Your task to perform on an android device: Toggle the flashlight Image 0: 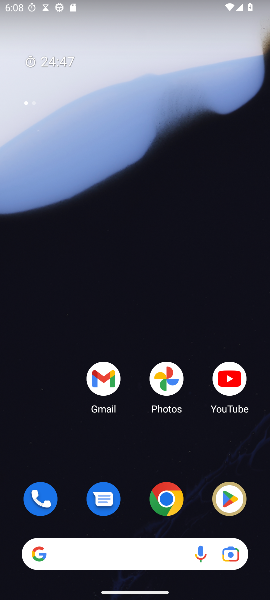
Step 0: drag from (126, 501) to (69, 61)
Your task to perform on an android device: Toggle the flashlight Image 1: 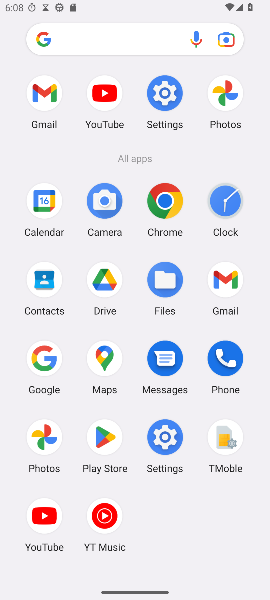
Step 1: click (159, 94)
Your task to perform on an android device: Toggle the flashlight Image 2: 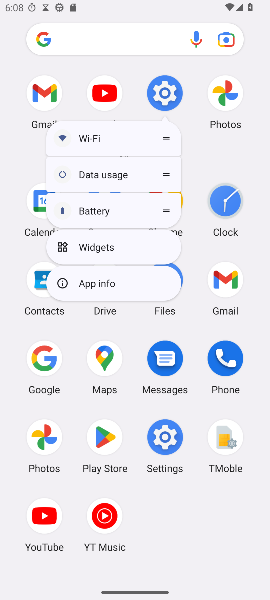
Step 2: click (159, 94)
Your task to perform on an android device: Toggle the flashlight Image 3: 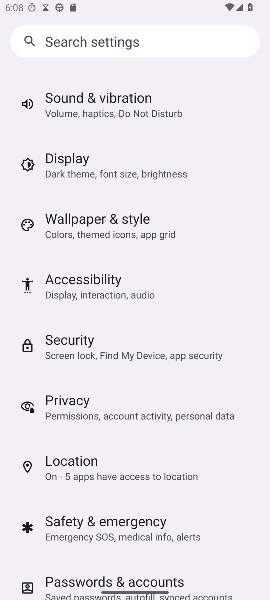
Step 3: task complete